Your task to perform on an android device: turn off location history Image 0: 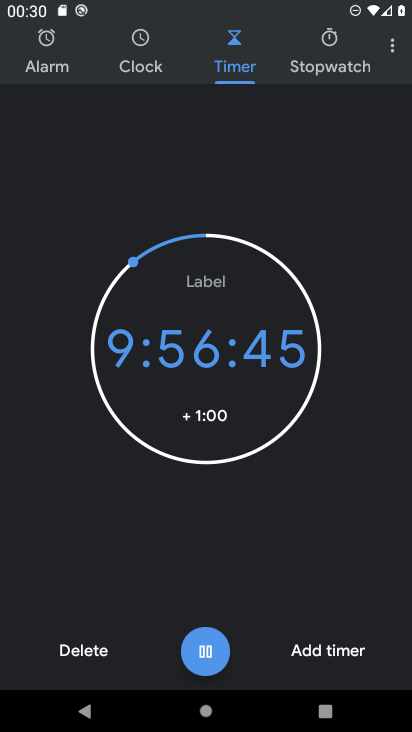
Step 0: press home button
Your task to perform on an android device: turn off location history Image 1: 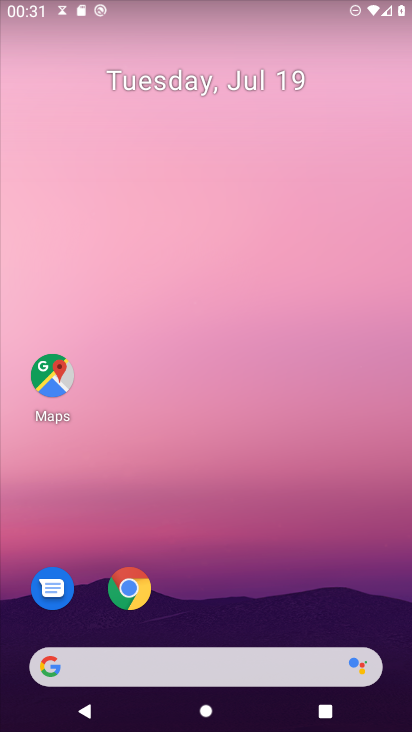
Step 1: drag from (313, 558) to (383, 122)
Your task to perform on an android device: turn off location history Image 2: 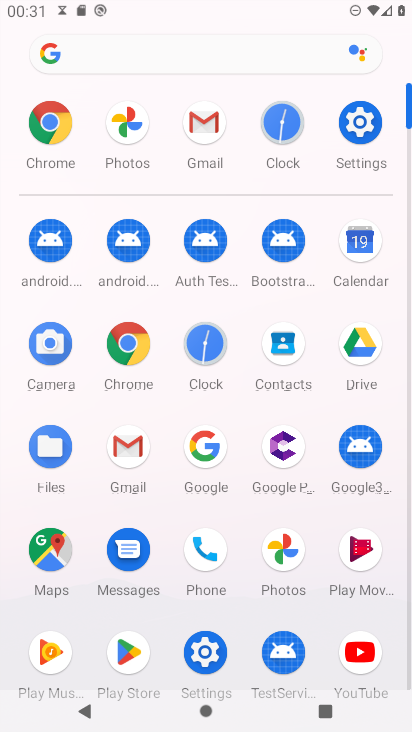
Step 2: click (364, 125)
Your task to perform on an android device: turn off location history Image 3: 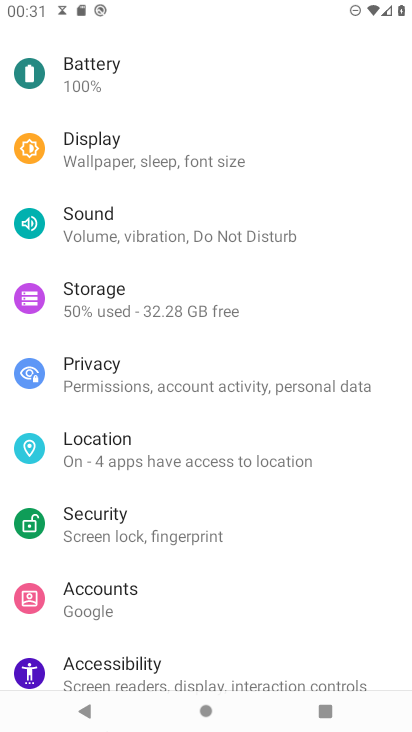
Step 3: click (220, 442)
Your task to perform on an android device: turn off location history Image 4: 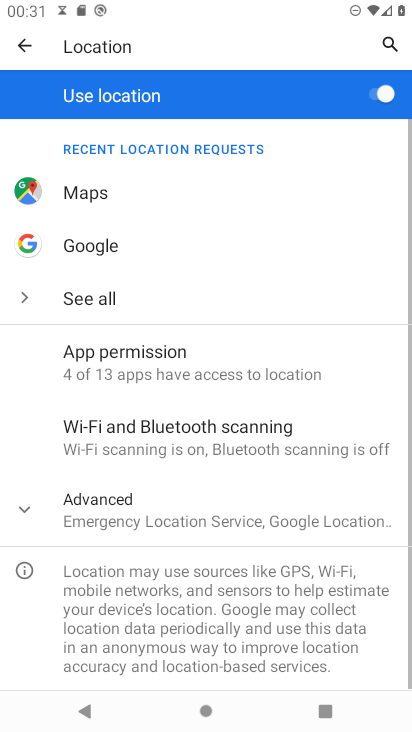
Step 4: click (21, 510)
Your task to perform on an android device: turn off location history Image 5: 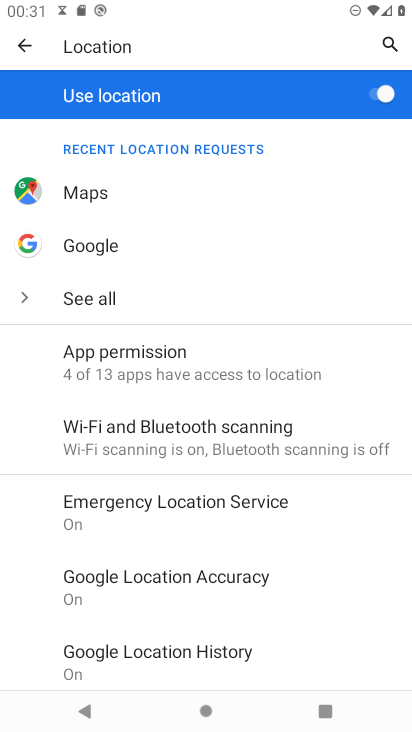
Step 5: click (219, 649)
Your task to perform on an android device: turn off location history Image 6: 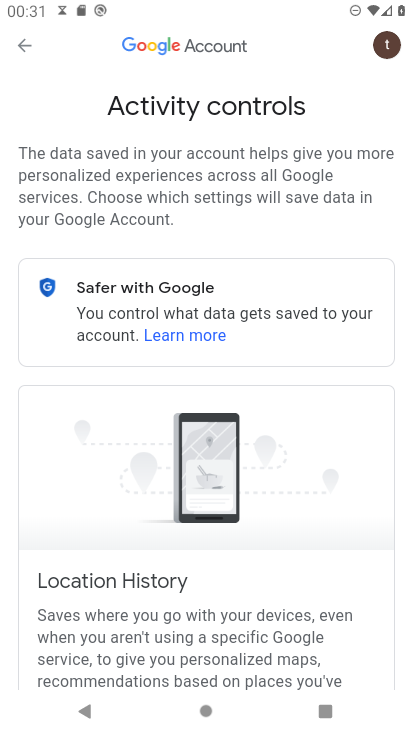
Step 6: drag from (342, 619) to (295, 258)
Your task to perform on an android device: turn off location history Image 7: 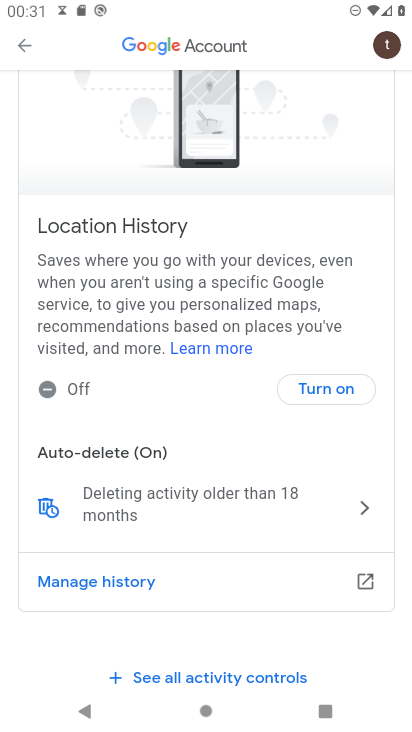
Step 7: click (345, 385)
Your task to perform on an android device: turn off location history Image 8: 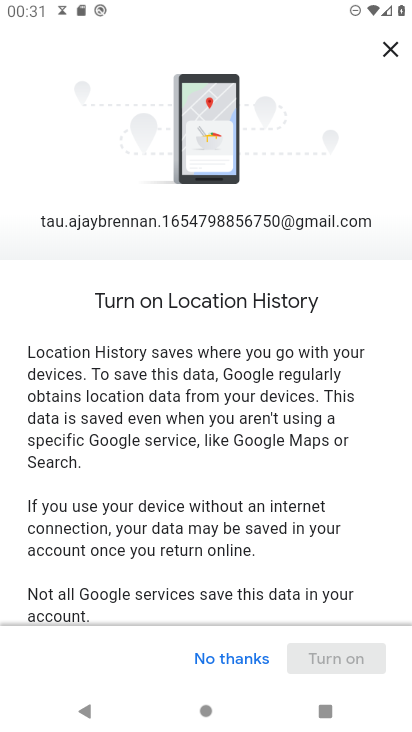
Step 8: drag from (335, 576) to (361, 230)
Your task to perform on an android device: turn off location history Image 9: 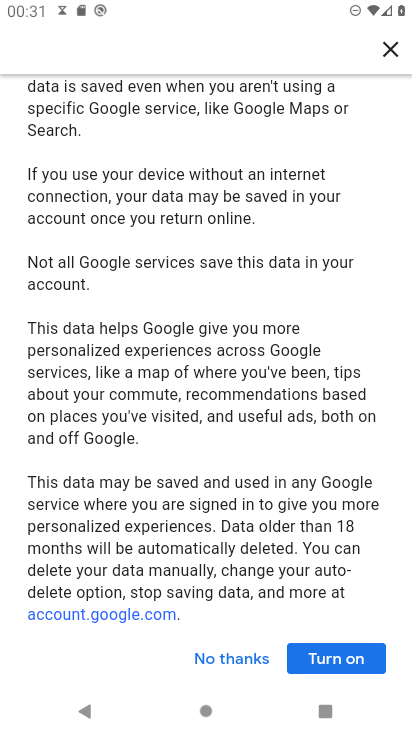
Step 9: click (232, 659)
Your task to perform on an android device: turn off location history Image 10: 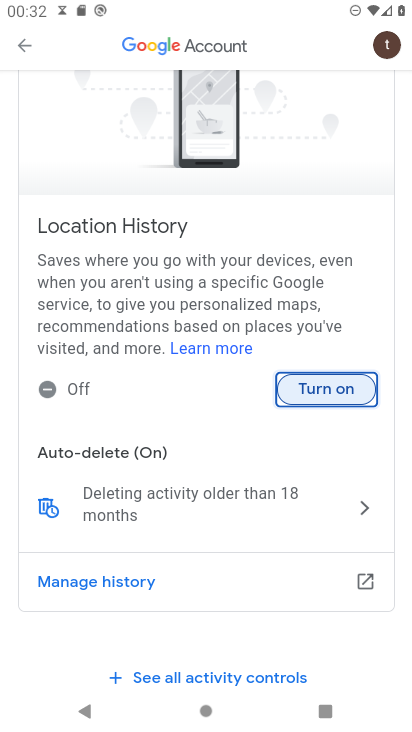
Step 10: task complete